Your task to perform on an android device: Open Google Maps Image 0: 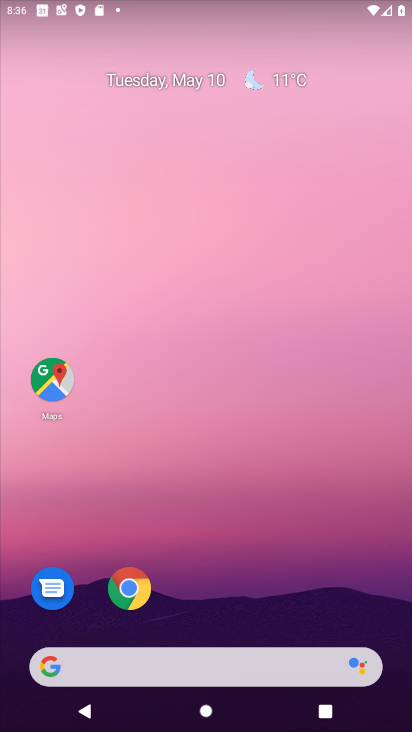
Step 0: click (123, 594)
Your task to perform on an android device: Open Google Maps Image 1: 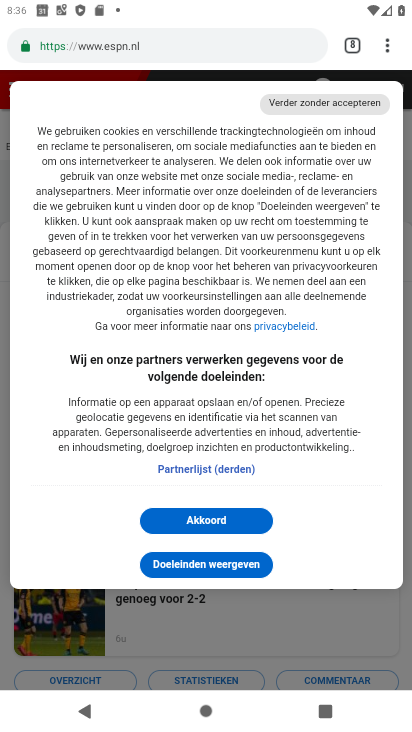
Step 1: task complete